Your task to perform on an android device: Open Chrome and go to settings Image 0: 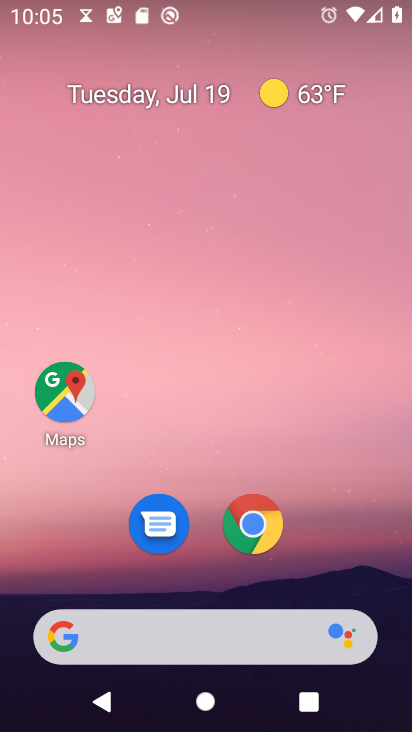
Step 0: click (245, 517)
Your task to perform on an android device: Open Chrome and go to settings Image 1: 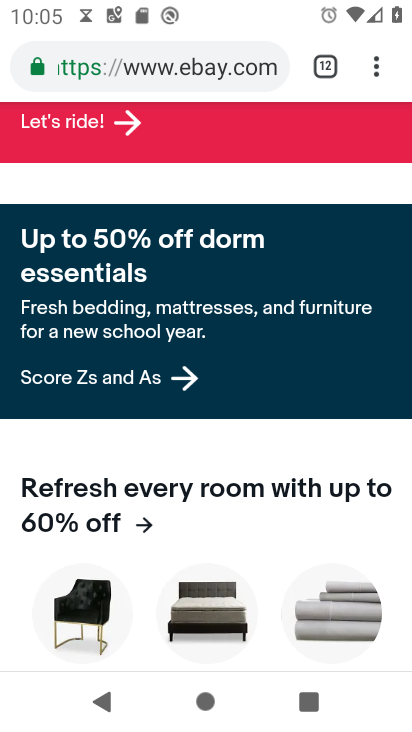
Step 1: task complete